Your task to perform on an android device: Open Google Chrome and click the shortcut for Amazon.com Image 0: 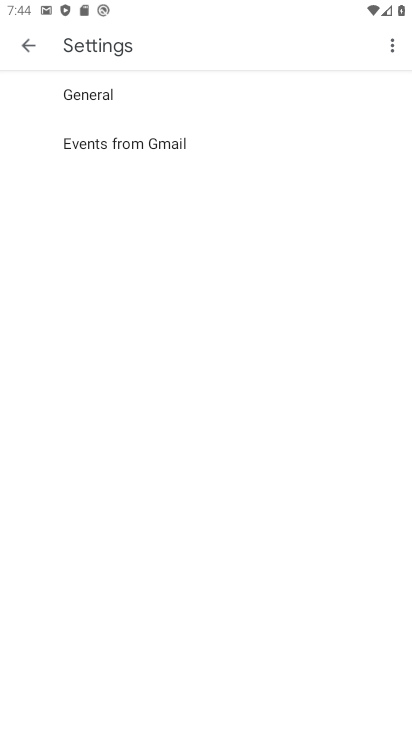
Step 0: press home button
Your task to perform on an android device: Open Google Chrome and click the shortcut for Amazon.com Image 1: 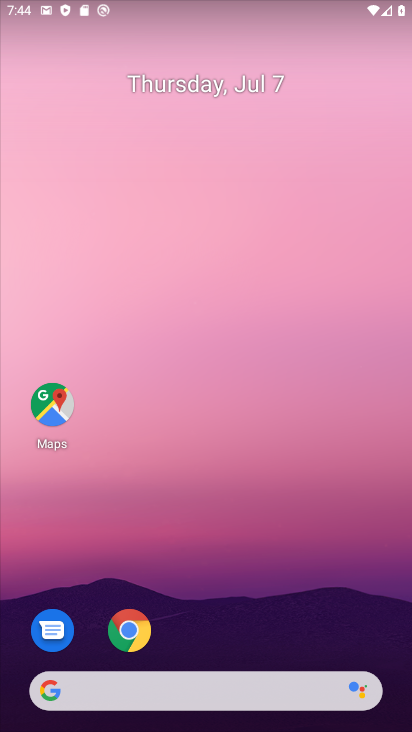
Step 1: click (135, 627)
Your task to perform on an android device: Open Google Chrome and click the shortcut for Amazon.com Image 2: 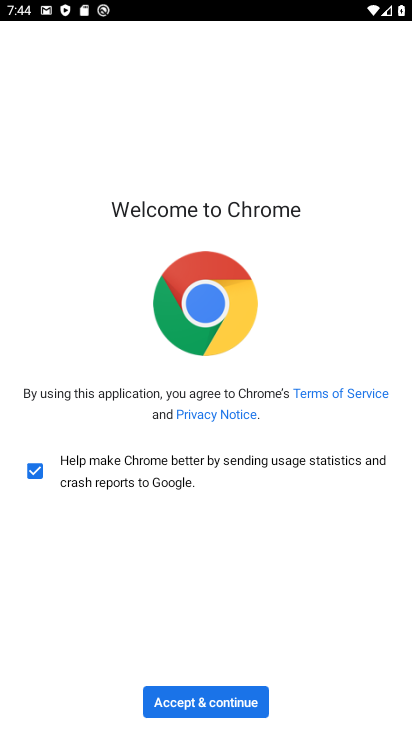
Step 2: click (230, 689)
Your task to perform on an android device: Open Google Chrome and click the shortcut for Amazon.com Image 3: 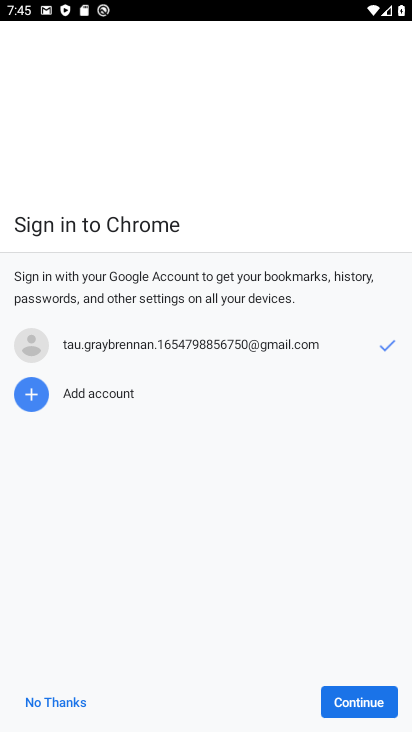
Step 3: click (348, 711)
Your task to perform on an android device: Open Google Chrome and click the shortcut for Amazon.com Image 4: 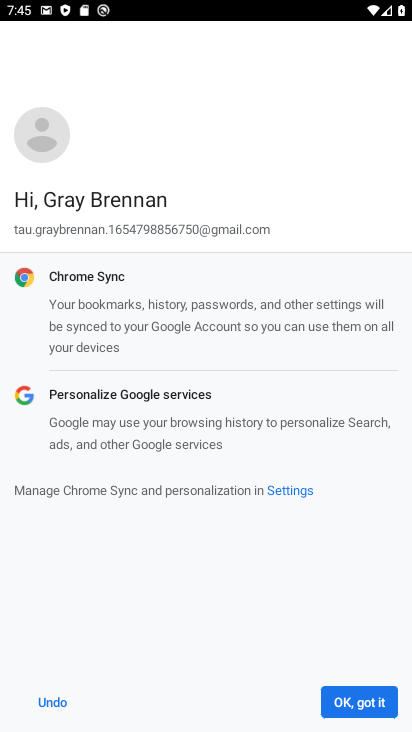
Step 4: click (348, 711)
Your task to perform on an android device: Open Google Chrome and click the shortcut for Amazon.com Image 5: 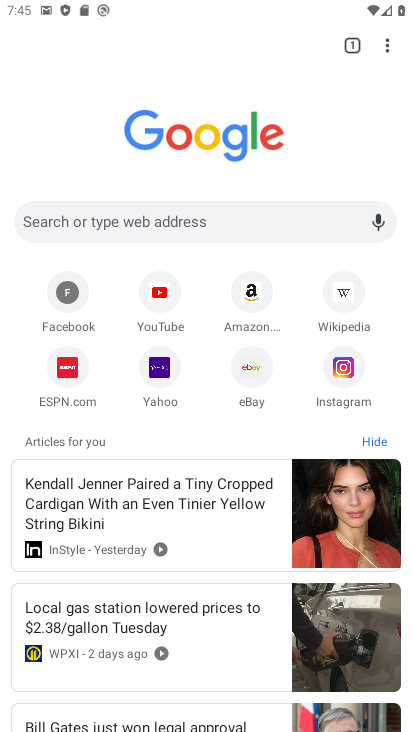
Step 5: click (259, 292)
Your task to perform on an android device: Open Google Chrome and click the shortcut for Amazon.com Image 6: 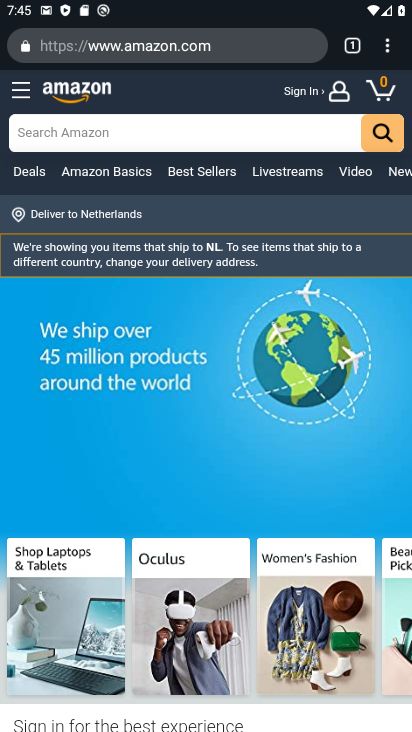
Step 6: task complete